Your task to perform on an android device: turn on the 24-hour format for clock Image 0: 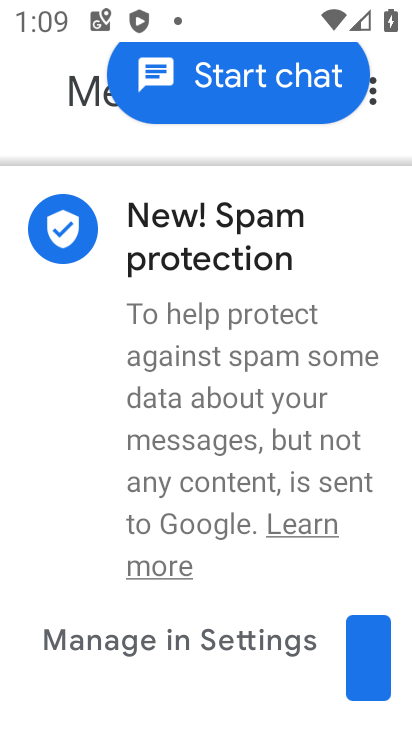
Step 0: press home button
Your task to perform on an android device: turn on the 24-hour format for clock Image 1: 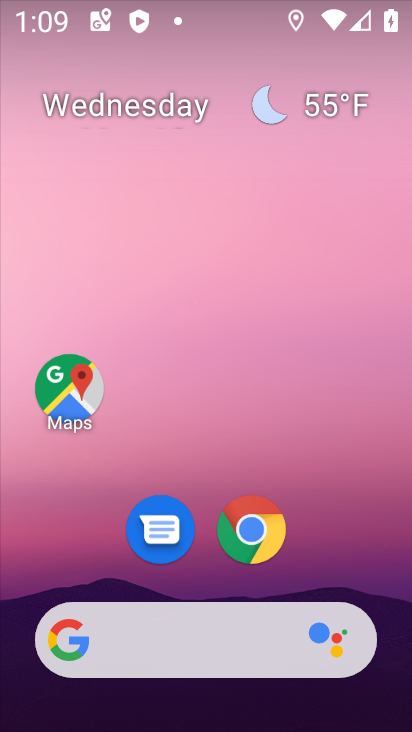
Step 1: drag from (188, 725) to (240, 163)
Your task to perform on an android device: turn on the 24-hour format for clock Image 2: 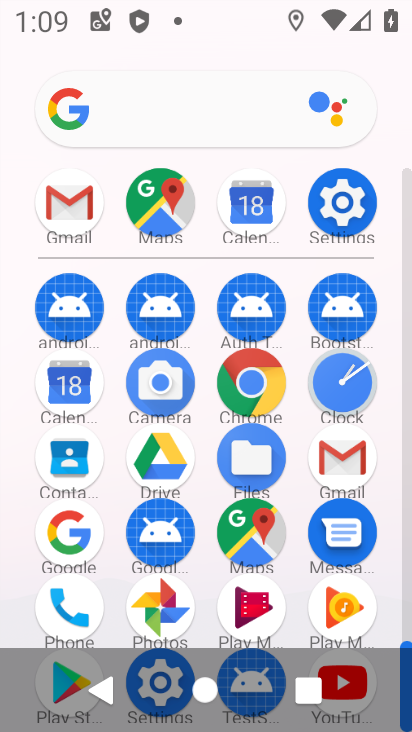
Step 2: click (332, 376)
Your task to perform on an android device: turn on the 24-hour format for clock Image 3: 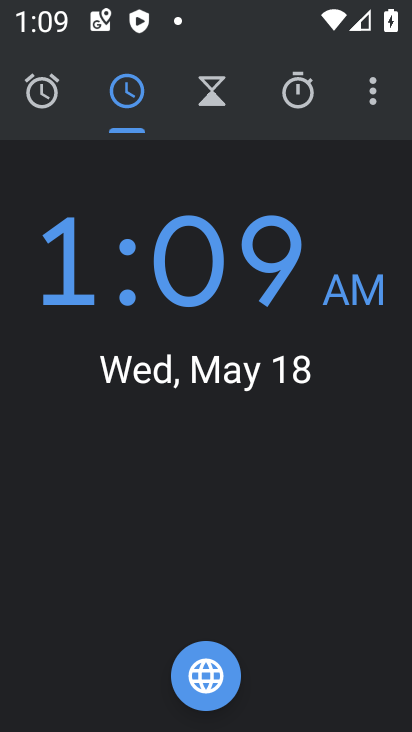
Step 3: click (376, 106)
Your task to perform on an android device: turn on the 24-hour format for clock Image 4: 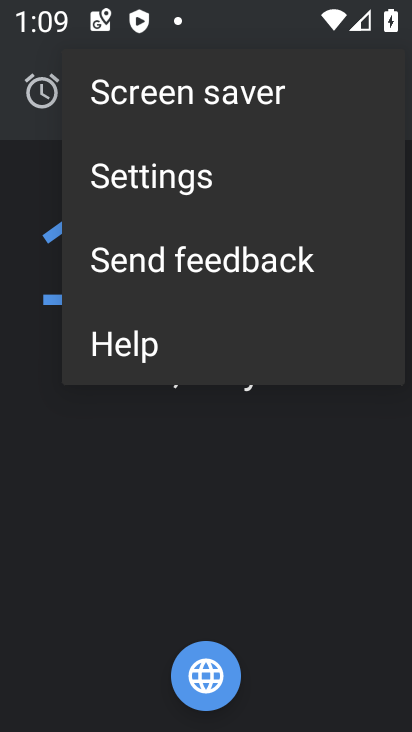
Step 4: click (149, 178)
Your task to perform on an android device: turn on the 24-hour format for clock Image 5: 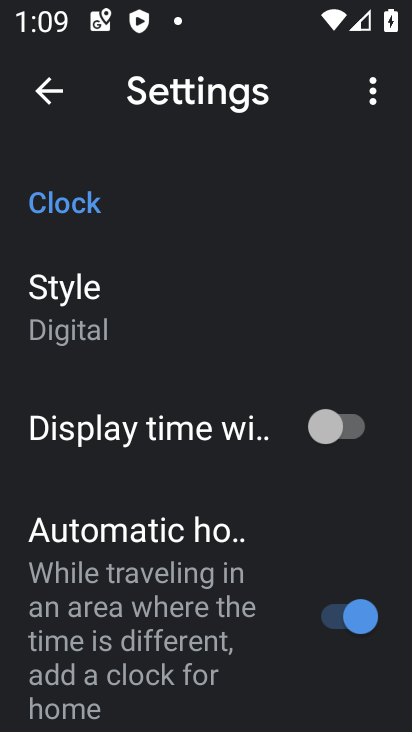
Step 5: drag from (83, 641) to (140, 316)
Your task to perform on an android device: turn on the 24-hour format for clock Image 6: 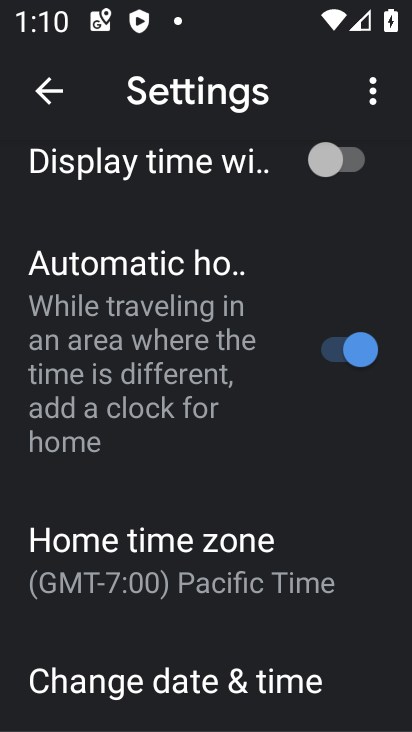
Step 6: drag from (132, 628) to (172, 307)
Your task to perform on an android device: turn on the 24-hour format for clock Image 7: 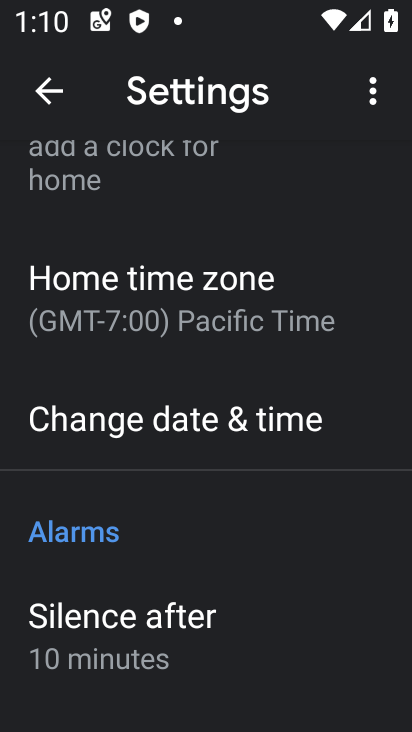
Step 7: click (184, 420)
Your task to perform on an android device: turn on the 24-hour format for clock Image 8: 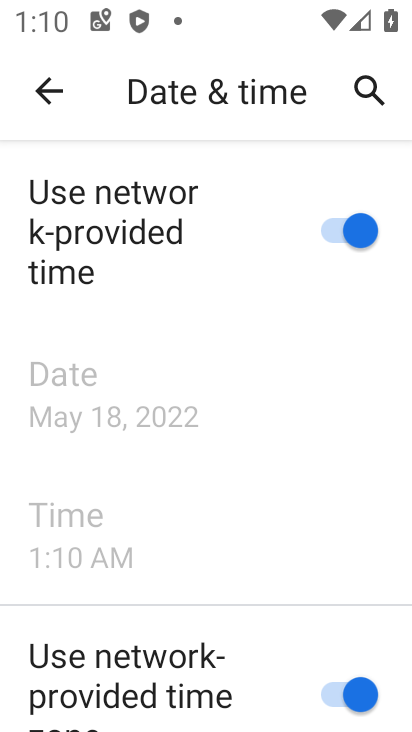
Step 8: drag from (181, 665) to (209, 272)
Your task to perform on an android device: turn on the 24-hour format for clock Image 9: 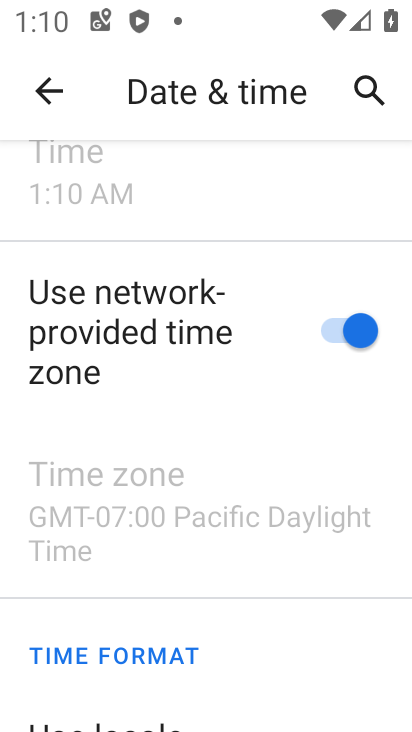
Step 9: drag from (216, 660) to (217, 287)
Your task to perform on an android device: turn on the 24-hour format for clock Image 10: 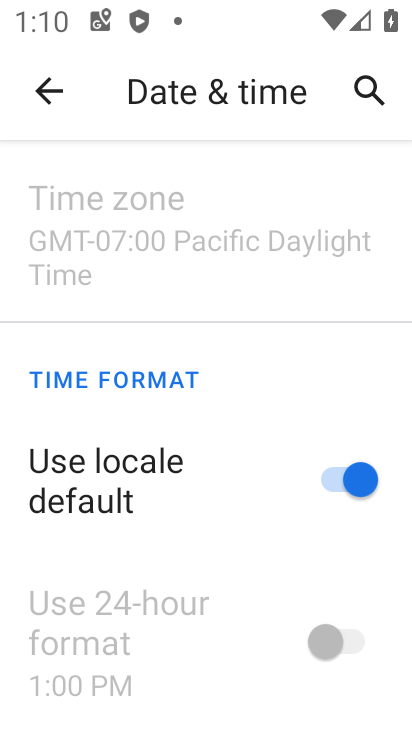
Step 10: click (331, 487)
Your task to perform on an android device: turn on the 24-hour format for clock Image 11: 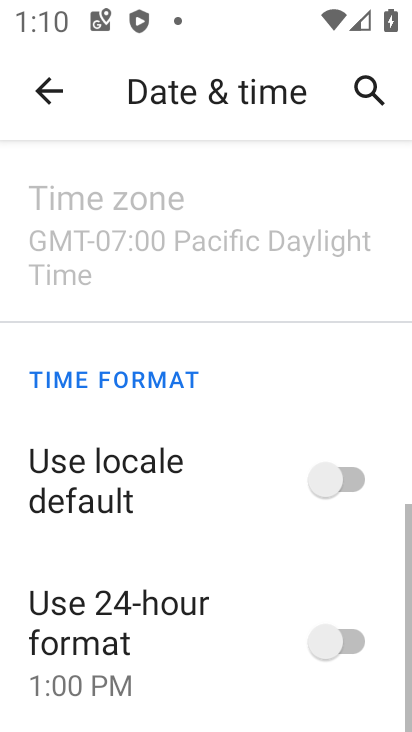
Step 11: click (346, 639)
Your task to perform on an android device: turn on the 24-hour format for clock Image 12: 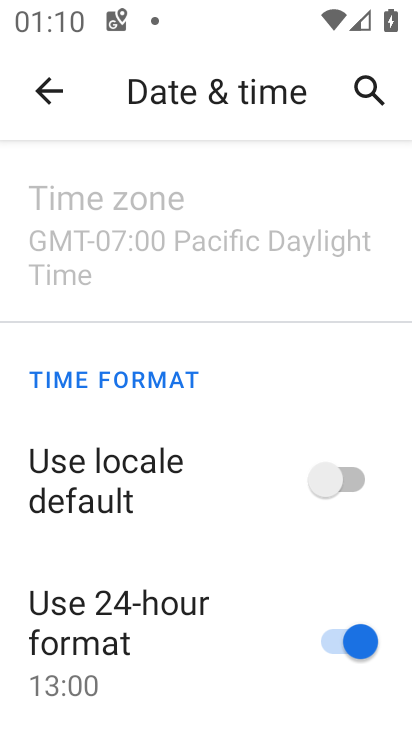
Step 12: task complete